Your task to perform on an android device: stop showing notifications on the lock screen Image 0: 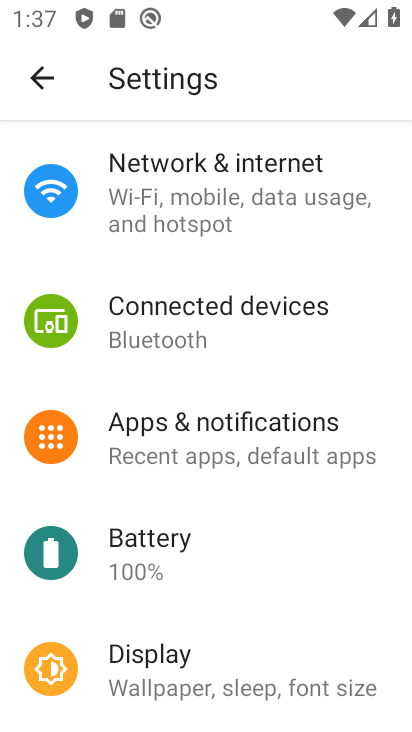
Step 0: click (192, 436)
Your task to perform on an android device: stop showing notifications on the lock screen Image 1: 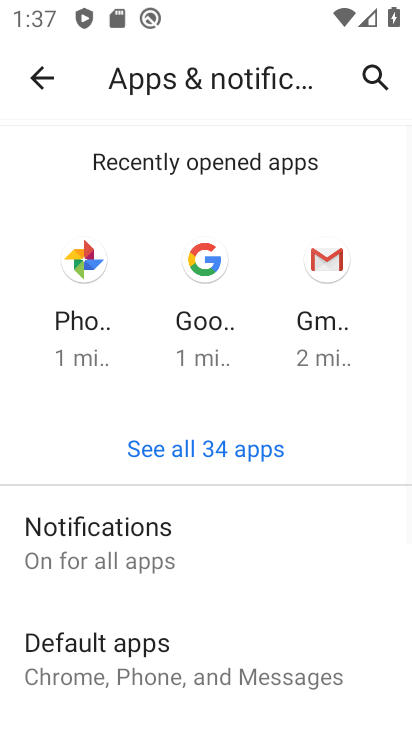
Step 1: drag from (261, 615) to (291, 351)
Your task to perform on an android device: stop showing notifications on the lock screen Image 2: 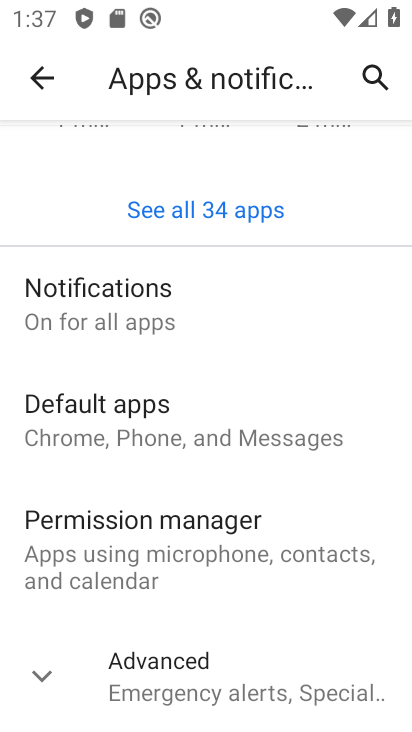
Step 2: drag from (317, 621) to (306, 384)
Your task to perform on an android device: stop showing notifications on the lock screen Image 3: 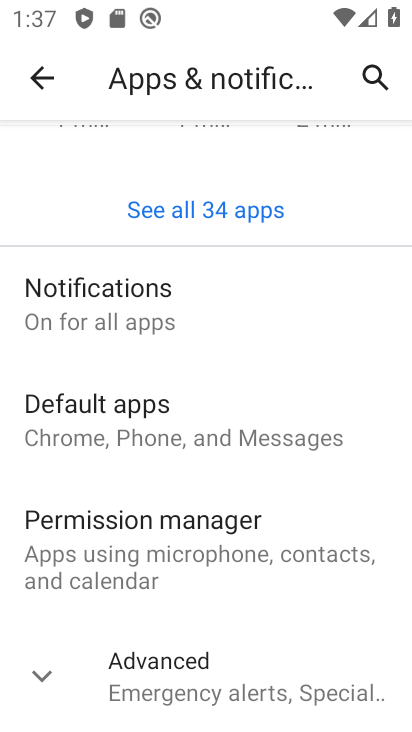
Step 3: click (54, 671)
Your task to perform on an android device: stop showing notifications on the lock screen Image 4: 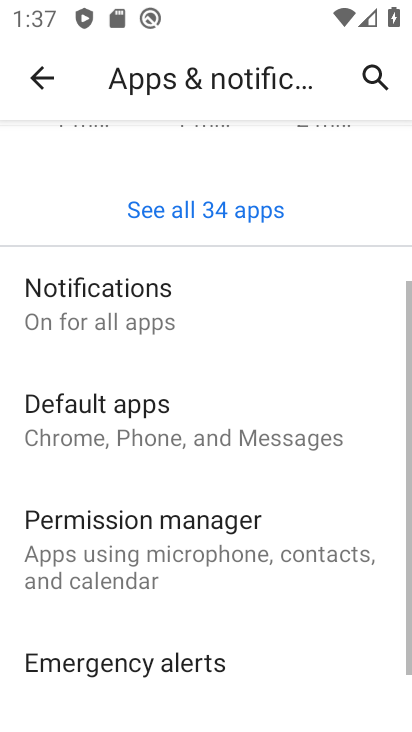
Step 4: drag from (287, 686) to (299, 382)
Your task to perform on an android device: stop showing notifications on the lock screen Image 5: 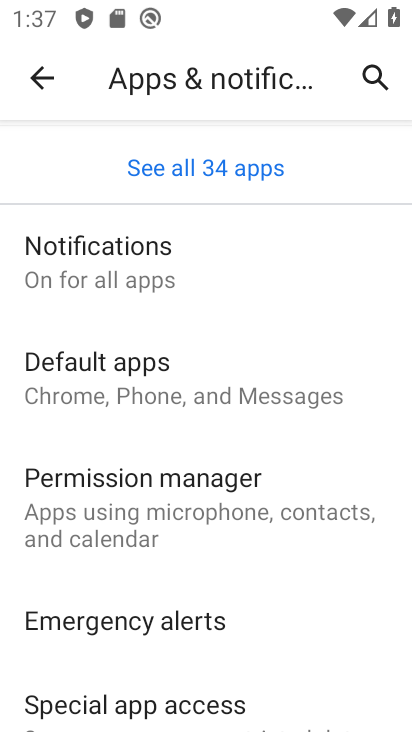
Step 5: drag from (312, 701) to (318, 460)
Your task to perform on an android device: stop showing notifications on the lock screen Image 6: 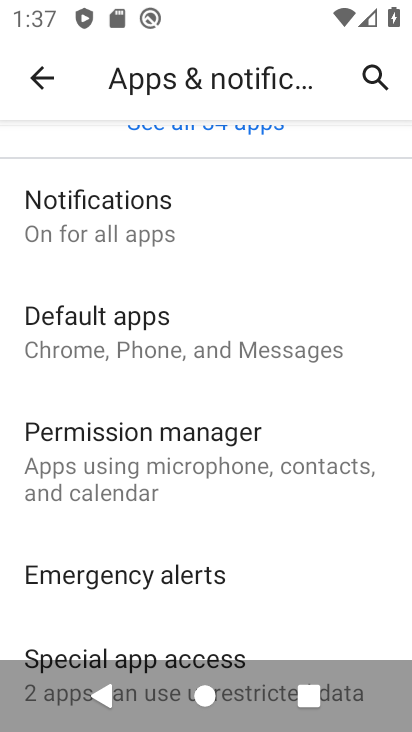
Step 6: drag from (295, 625) to (315, 348)
Your task to perform on an android device: stop showing notifications on the lock screen Image 7: 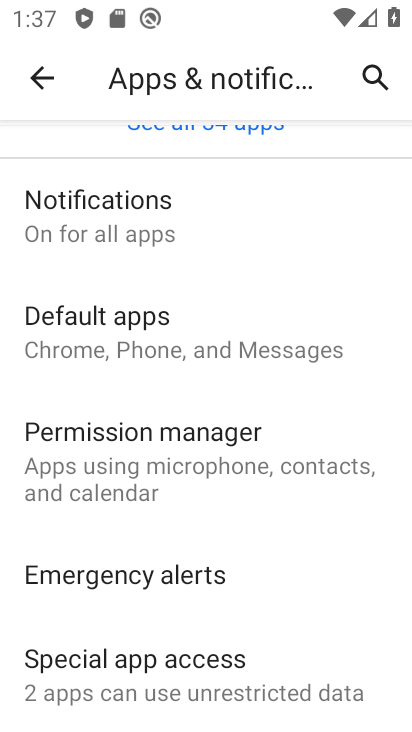
Step 7: click (90, 665)
Your task to perform on an android device: stop showing notifications on the lock screen Image 8: 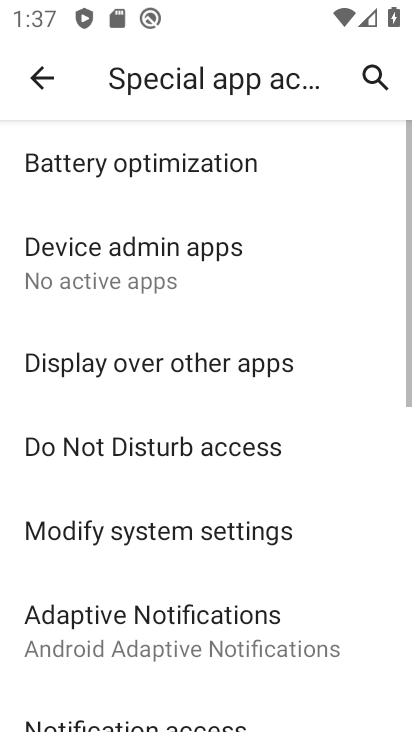
Step 8: drag from (289, 694) to (315, 505)
Your task to perform on an android device: stop showing notifications on the lock screen Image 9: 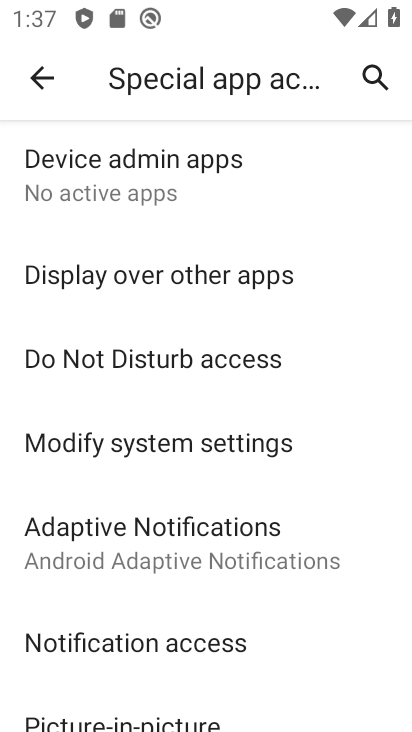
Step 9: drag from (288, 699) to (311, 466)
Your task to perform on an android device: stop showing notifications on the lock screen Image 10: 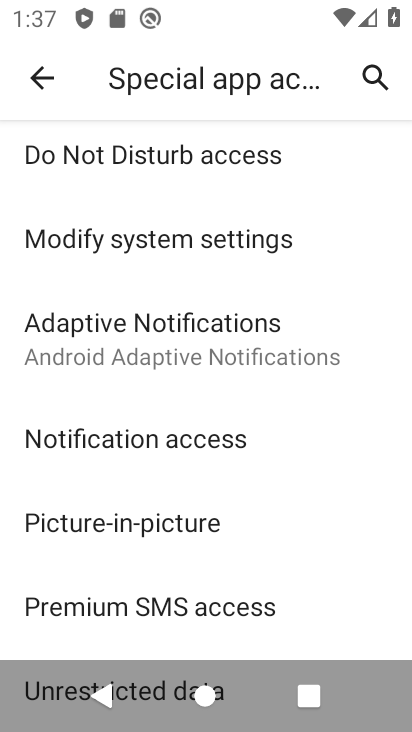
Step 10: drag from (276, 613) to (297, 457)
Your task to perform on an android device: stop showing notifications on the lock screen Image 11: 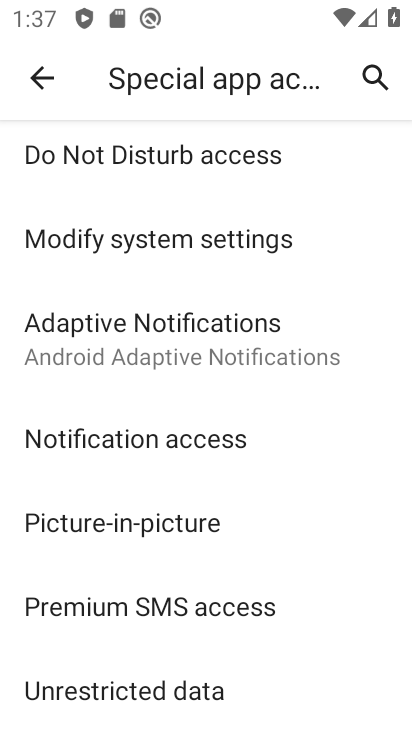
Step 11: click (38, 77)
Your task to perform on an android device: stop showing notifications on the lock screen Image 12: 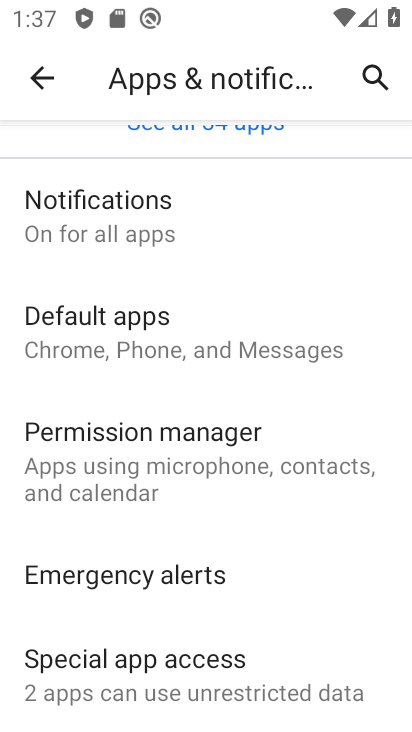
Step 12: click (105, 209)
Your task to perform on an android device: stop showing notifications on the lock screen Image 13: 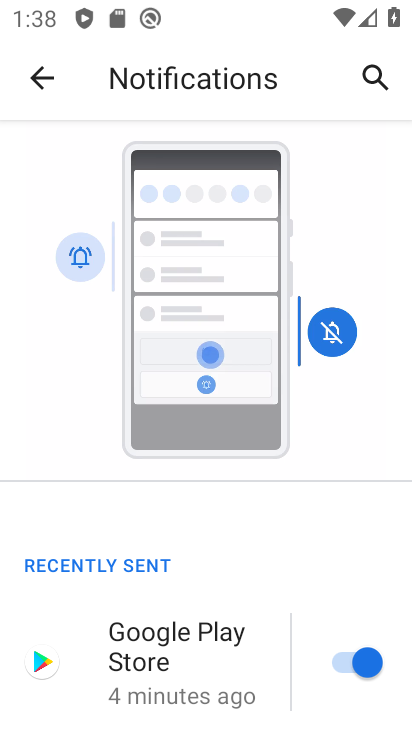
Step 13: click (340, 669)
Your task to perform on an android device: stop showing notifications on the lock screen Image 14: 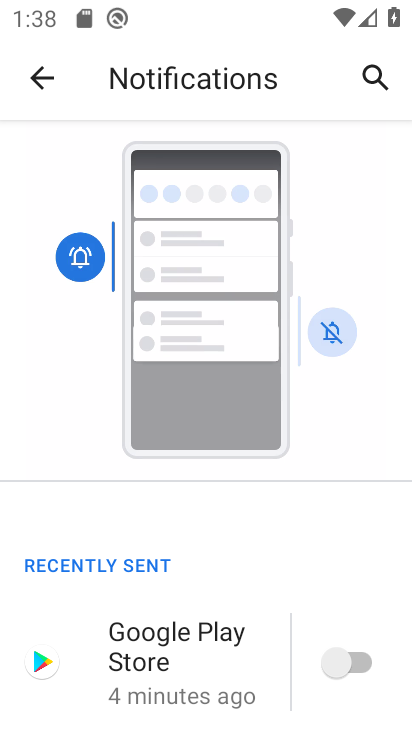
Step 14: drag from (252, 544) to (265, 302)
Your task to perform on an android device: stop showing notifications on the lock screen Image 15: 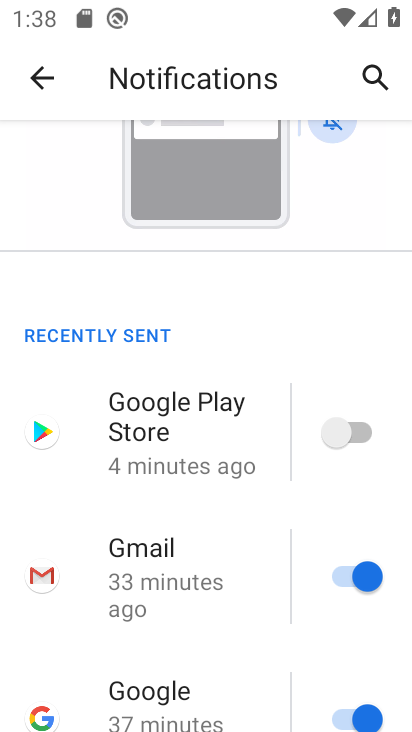
Step 15: click (336, 580)
Your task to perform on an android device: stop showing notifications on the lock screen Image 16: 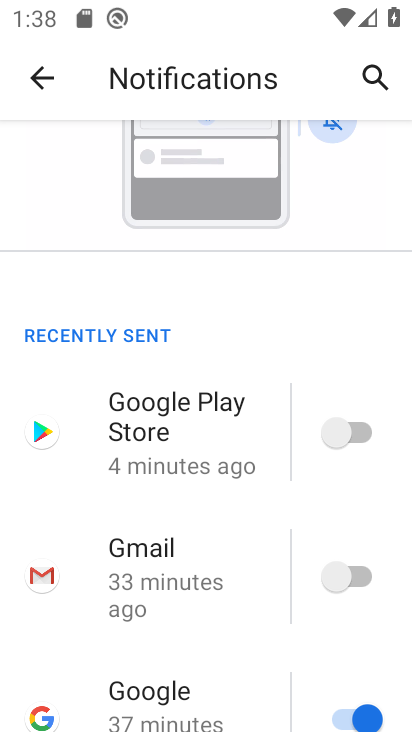
Step 16: click (346, 713)
Your task to perform on an android device: stop showing notifications on the lock screen Image 17: 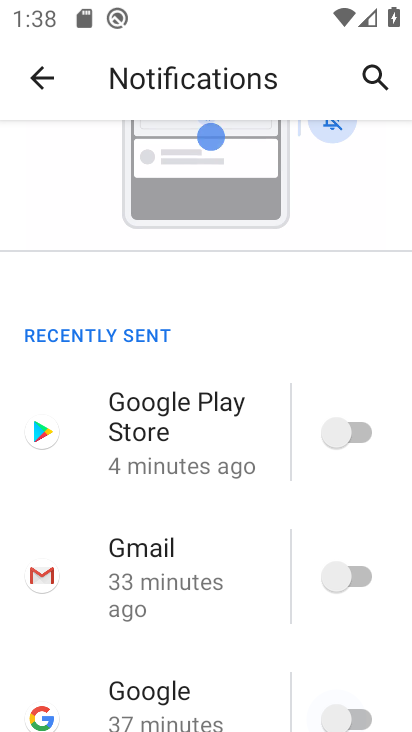
Step 17: drag from (240, 550) to (253, 356)
Your task to perform on an android device: stop showing notifications on the lock screen Image 18: 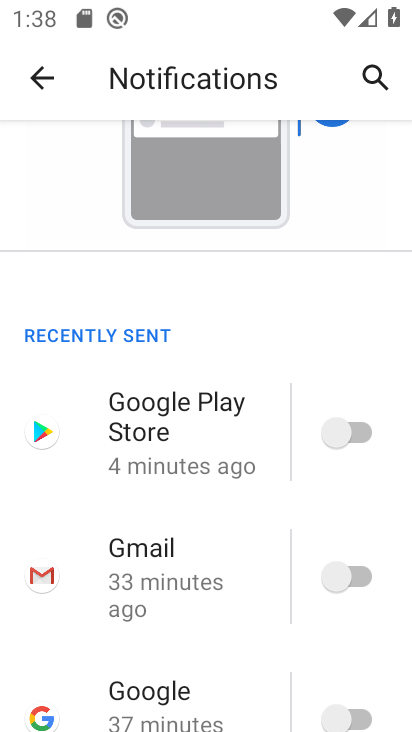
Step 18: drag from (251, 670) to (231, 387)
Your task to perform on an android device: stop showing notifications on the lock screen Image 19: 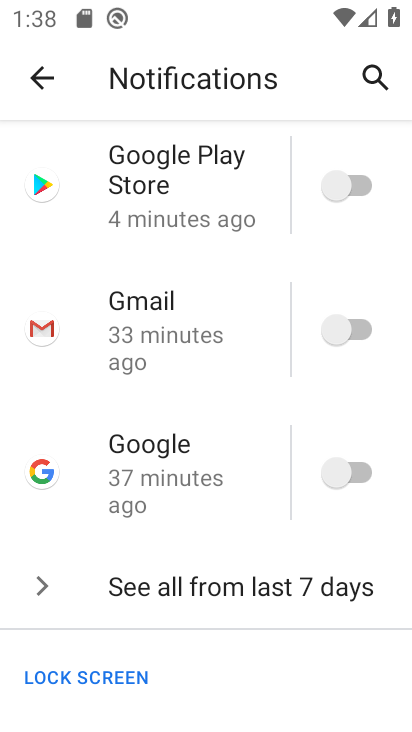
Step 19: drag from (248, 702) to (245, 365)
Your task to perform on an android device: stop showing notifications on the lock screen Image 20: 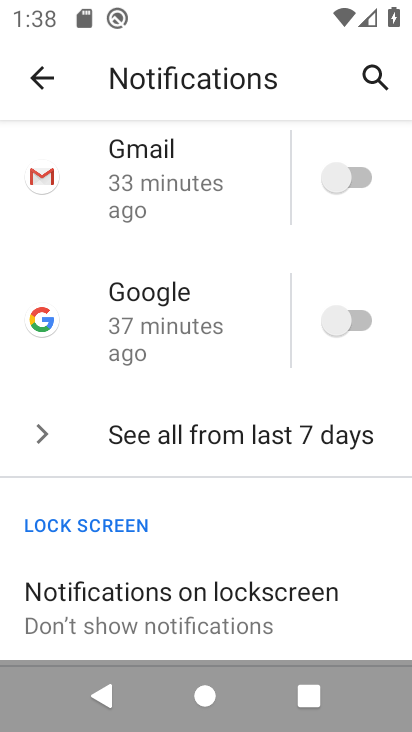
Step 20: drag from (268, 583) to (275, 316)
Your task to perform on an android device: stop showing notifications on the lock screen Image 21: 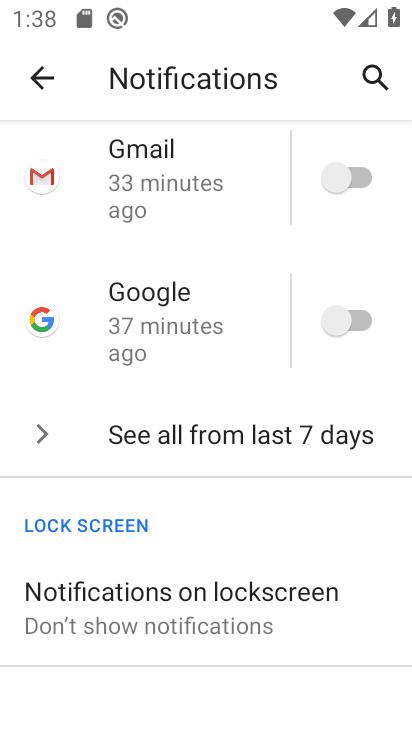
Step 21: click (352, 322)
Your task to perform on an android device: stop showing notifications on the lock screen Image 22: 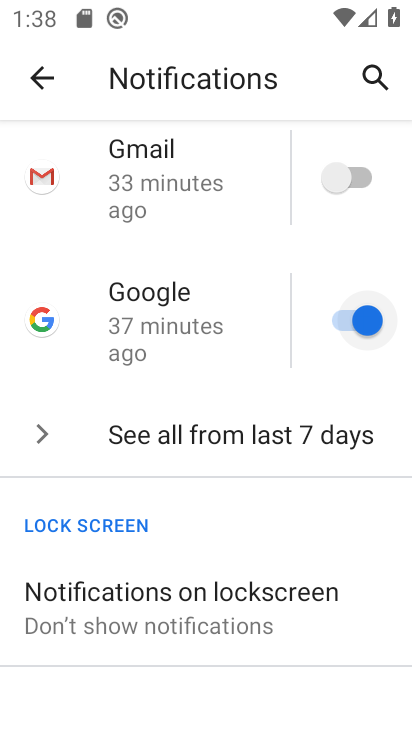
Step 22: click (362, 183)
Your task to perform on an android device: stop showing notifications on the lock screen Image 23: 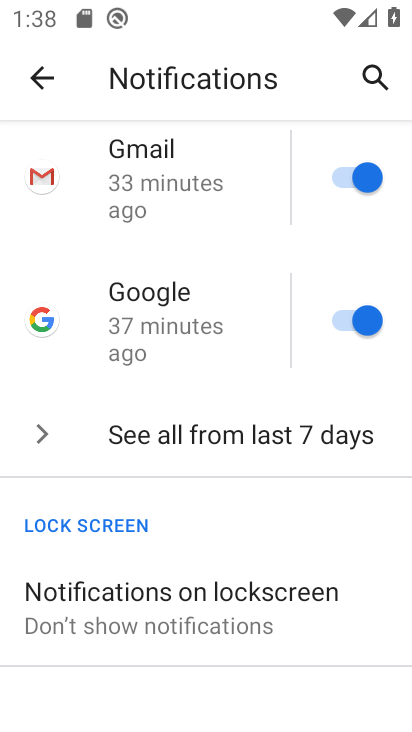
Step 23: click (174, 607)
Your task to perform on an android device: stop showing notifications on the lock screen Image 24: 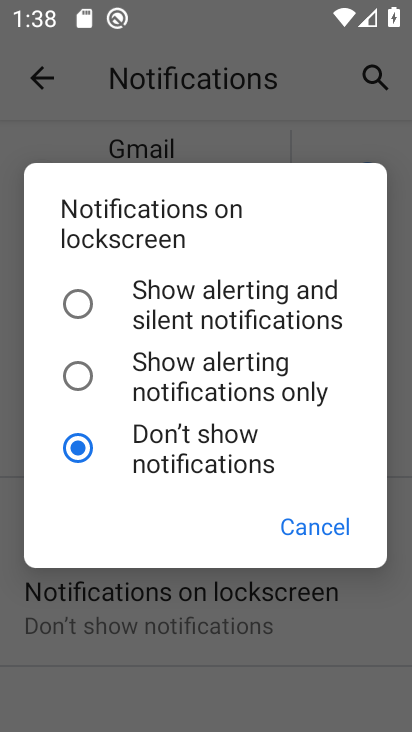
Step 24: click (255, 619)
Your task to perform on an android device: stop showing notifications on the lock screen Image 25: 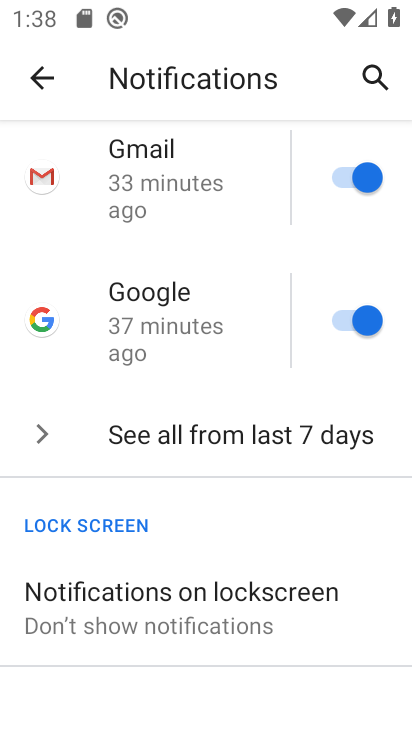
Step 25: drag from (272, 167) to (284, 449)
Your task to perform on an android device: stop showing notifications on the lock screen Image 26: 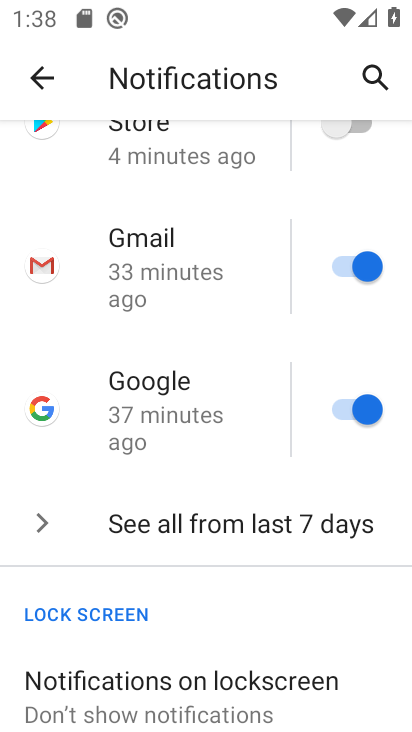
Step 26: drag from (294, 319) to (291, 433)
Your task to perform on an android device: stop showing notifications on the lock screen Image 27: 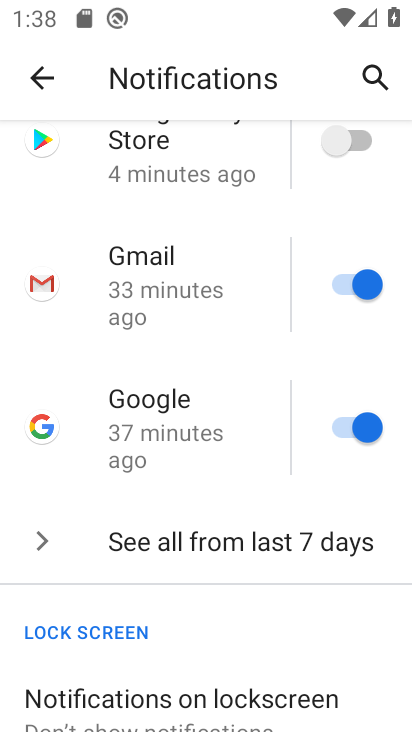
Step 27: click (369, 125)
Your task to perform on an android device: stop showing notifications on the lock screen Image 28: 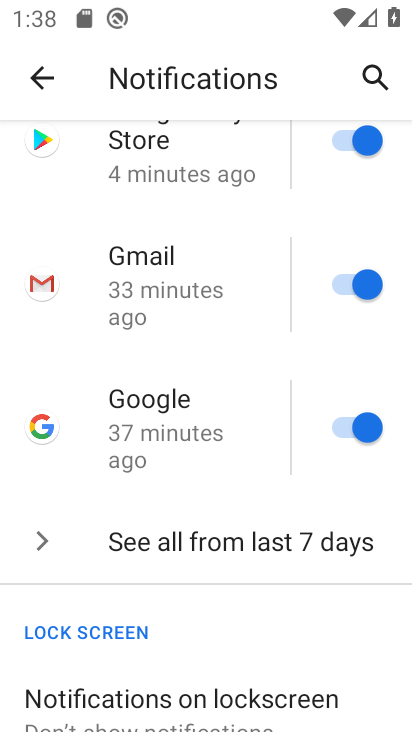
Step 28: task complete